Your task to perform on an android device: Search for Italian restaurants on Maps Image 0: 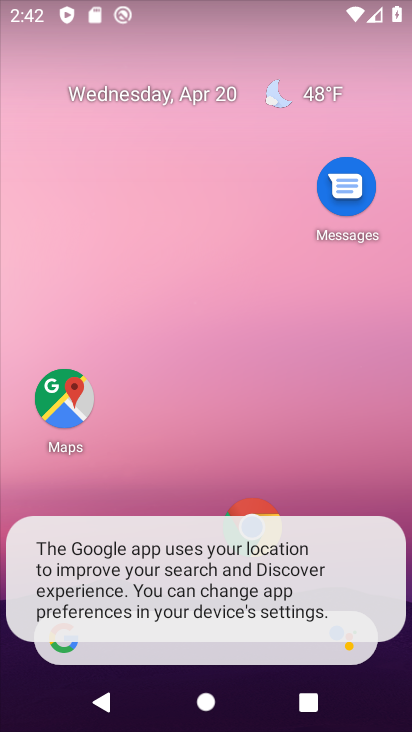
Step 0: press home button
Your task to perform on an android device: Search for Italian restaurants on Maps Image 1: 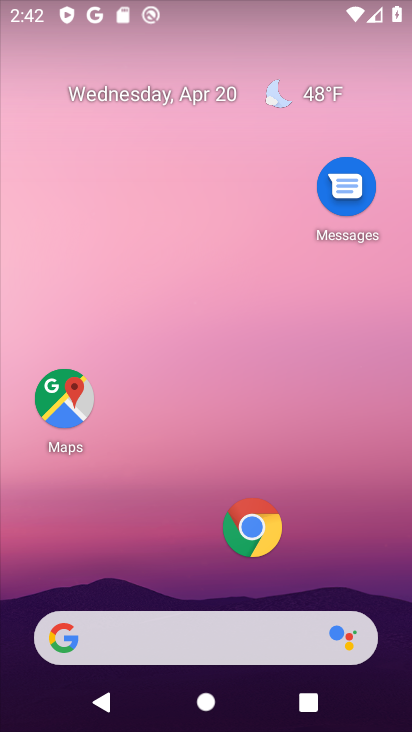
Step 1: drag from (188, 613) to (344, 173)
Your task to perform on an android device: Search for Italian restaurants on Maps Image 2: 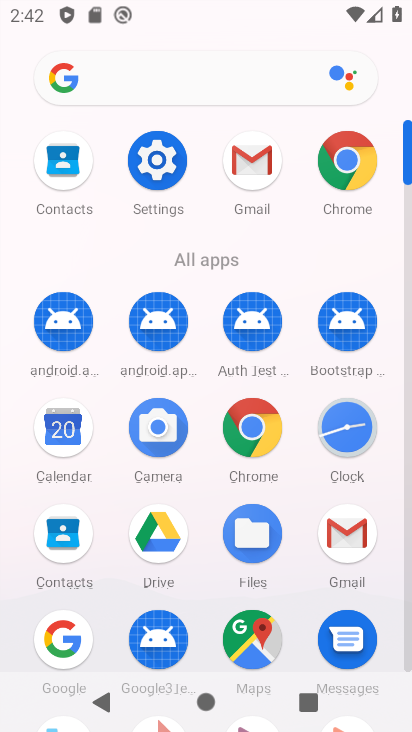
Step 2: click (254, 639)
Your task to perform on an android device: Search for Italian restaurants on Maps Image 3: 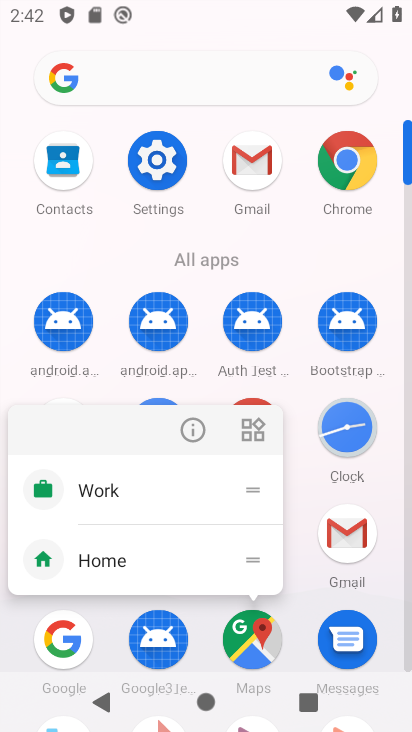
Step 3: click (254, 649)
Your task to perform on an android device: Search for Italian restaurants on Maps Image 4: 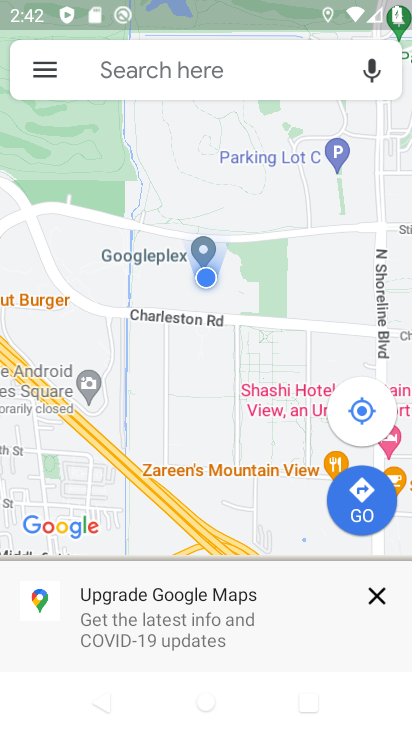
Step 4: click (188, 69)
Your task to perform on an android device: Search for Italian restaurants on Maps Image 5: 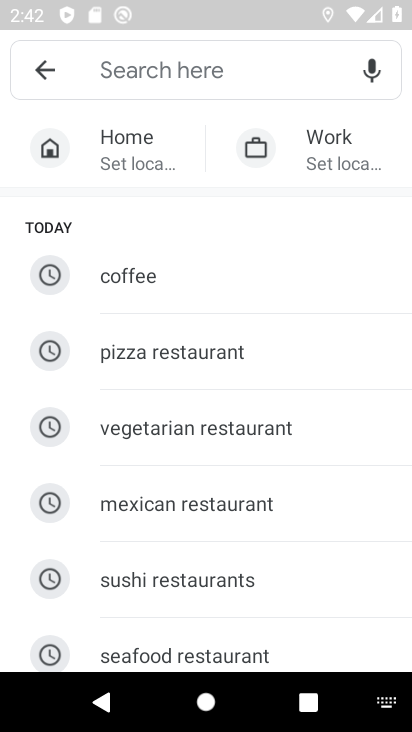
Step 5: drag from (220, 574) to (325, 300)
Your task to perform on an android device: Search for Italian restaurants on Maps Image 6: 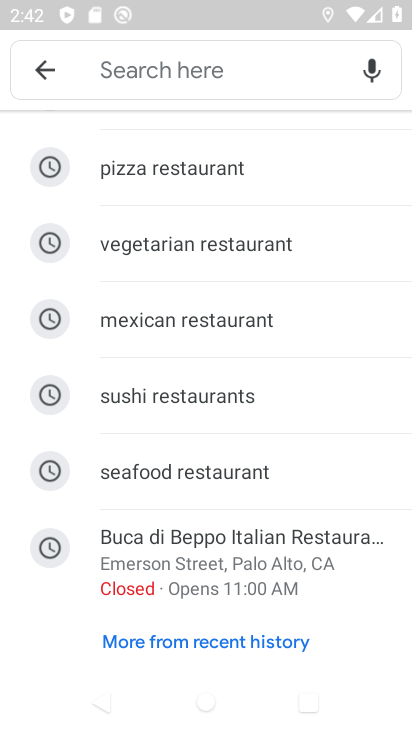
Step 6: drag from (235, 255) to (261, 538)
Your task to perform on an android device: Search for Italian restaurants on Maps Image 7: 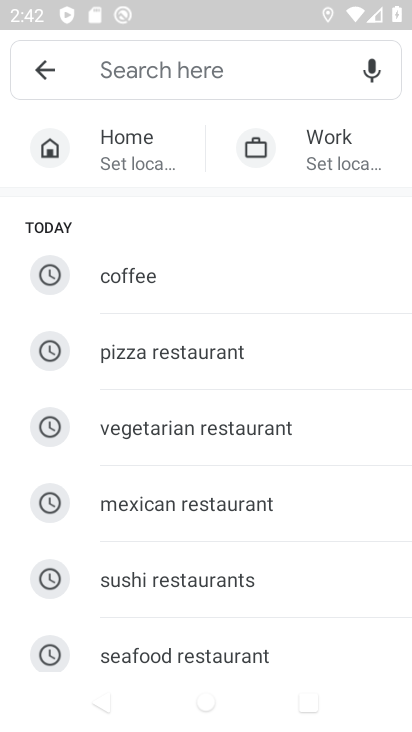
Step 7: type "italian "
Your task to perform on an android device: Search for Italian restaurants on Maps Image 8: 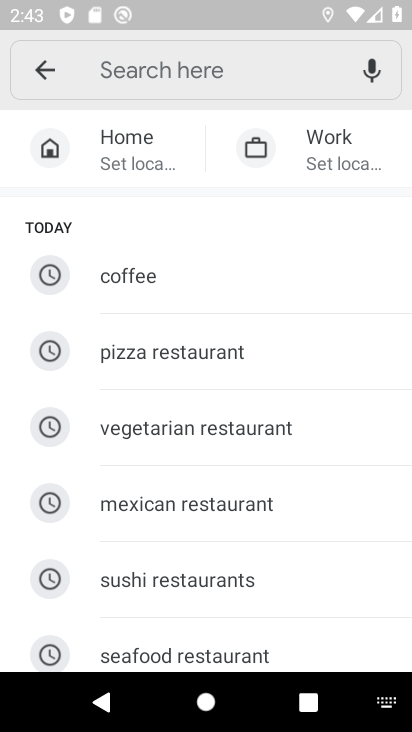
Step 8: click (108, 76)
Your task to perform on an android device: Search for Italian restaurants on Maps Image 9: 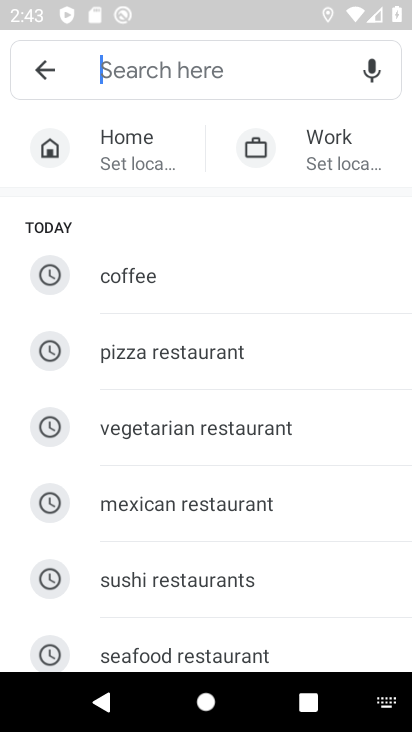
Step 9: type "italian"
Your task to perform on an android device: Search for Italian restaurants on Maps Image 10: 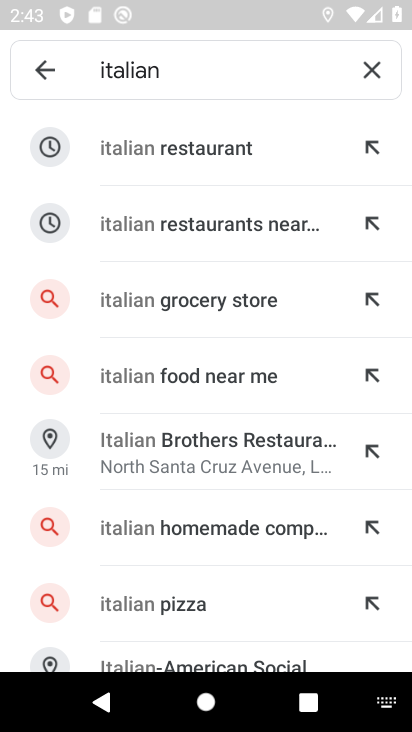
Step 10: click (198, 150)
Your task to perform on an android device: Search for Italian restaurants on Maps Image 11: 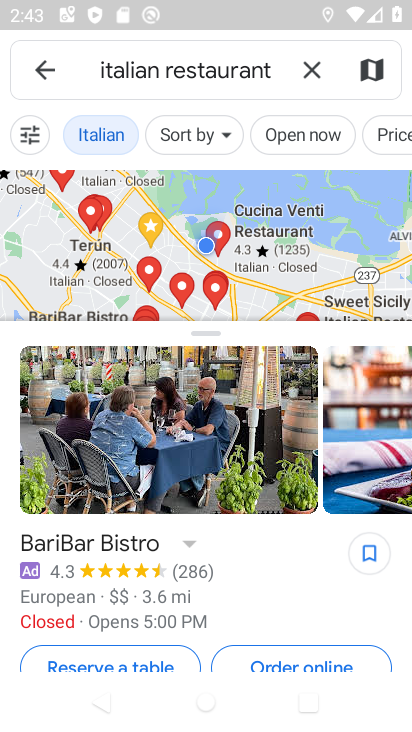
Step 11: task complete